Your task to perform on an android device: check data usage Image 0: 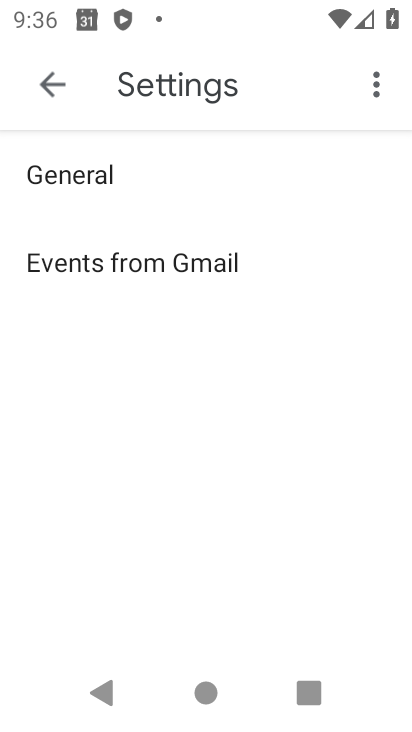
Step 0: press home button
Your task to perform on an android device: check data usage Image 1: 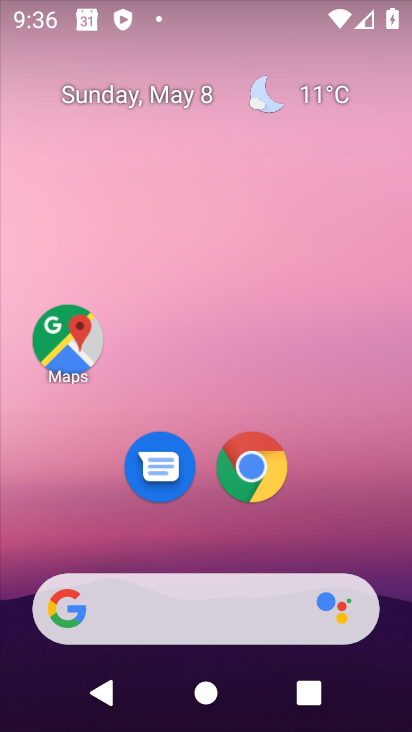
Step 1: drag from (196, 477) to (404, 167)
Your task to perform on an android device: check data usage Image 2: 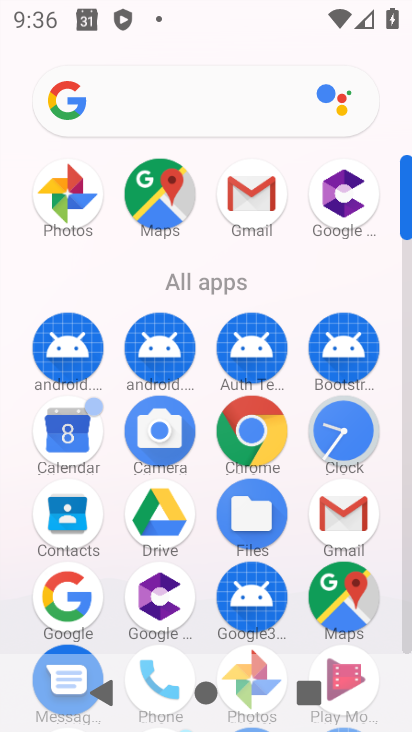
Step 2: click (279, 199)
Your task to perform on an android device: check data usage Image 3: 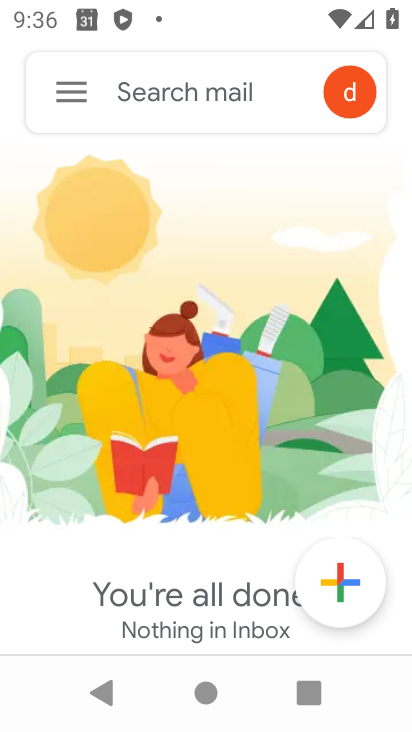
Step 3: press home button
Your task to perform on an android device: check data usage Image 4: 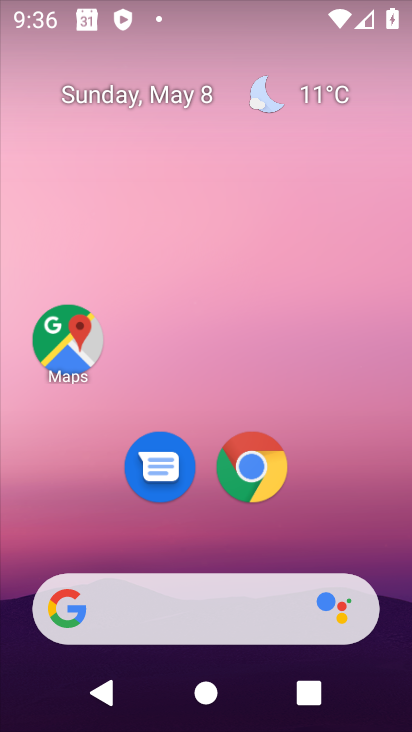
Step 4: drag from (26, 638) to (222, 134)
Your task to perform on an android device: check data usage Image 5: 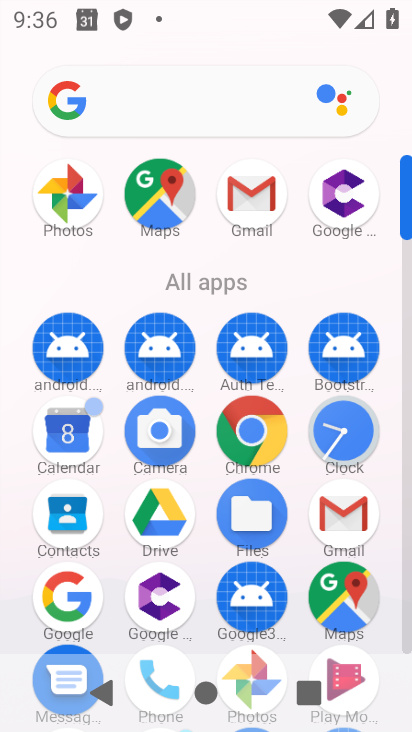
Step 5: drag from (72, 632) to (197, 176)
Your task to perform on an android device: check data usage Image 6: 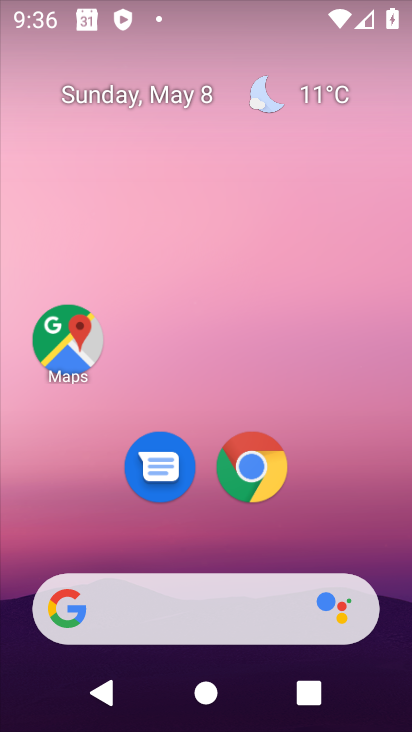
Step 6: drag from (8, 665) to (295, 52)
Your task to perform on an android device: check data usage Image 7: 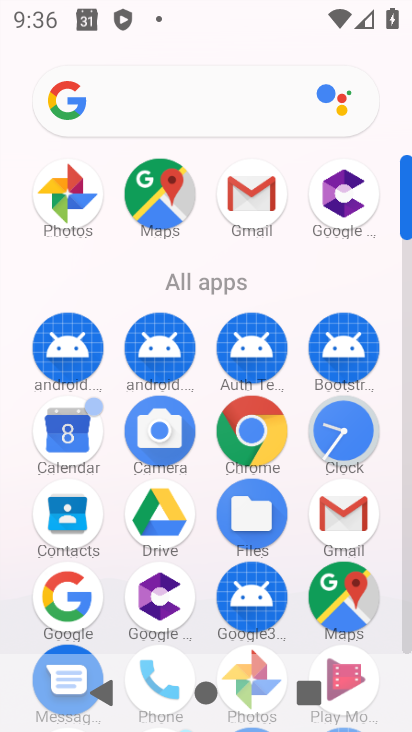
Step 7: drag from (33, 610) to (392, 80)
Your task to perform on an android device: check data usage Image 8: 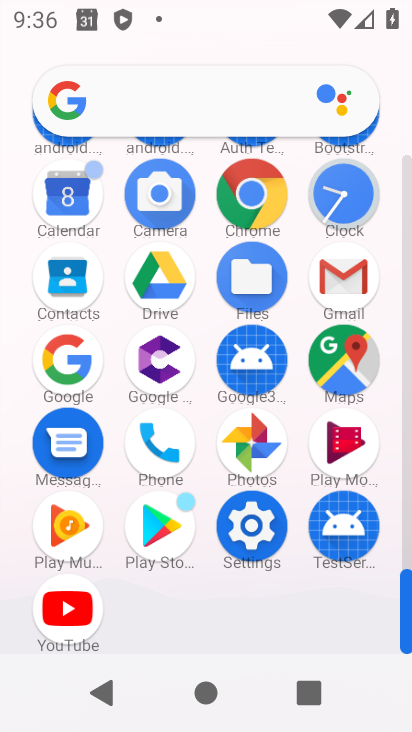
Step 8: click (254, 518)
Your task to perform on an android device: check data usage Image 9: 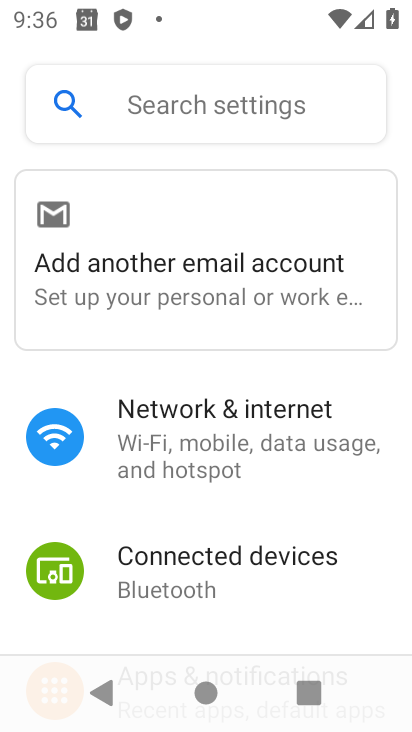
Step 9: click (247, 438)
Your task to perform on an android device: check data usage Image 10: 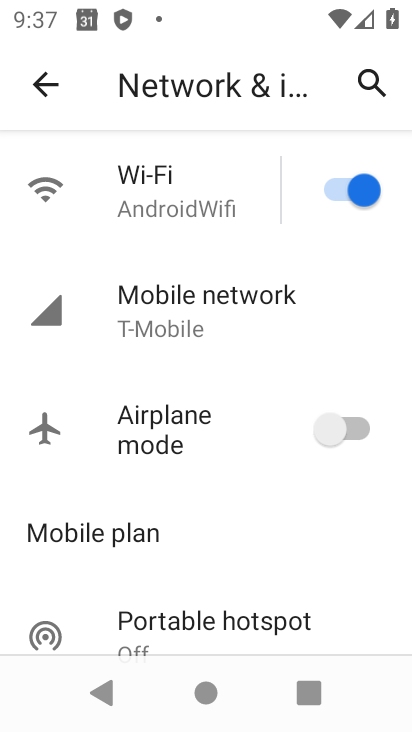
Step 10: click (206, 297)
Your task to perform on an android device: check data usage Image 11: 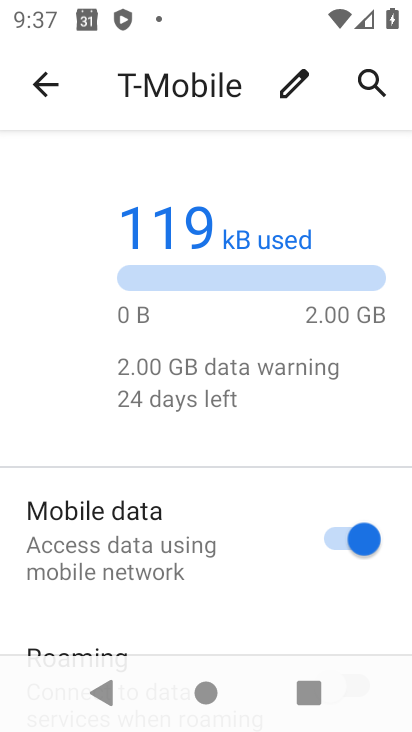
Step 11: task complete